Your task to perform on an android device: find snoozed emails in the gmail app Image 0: 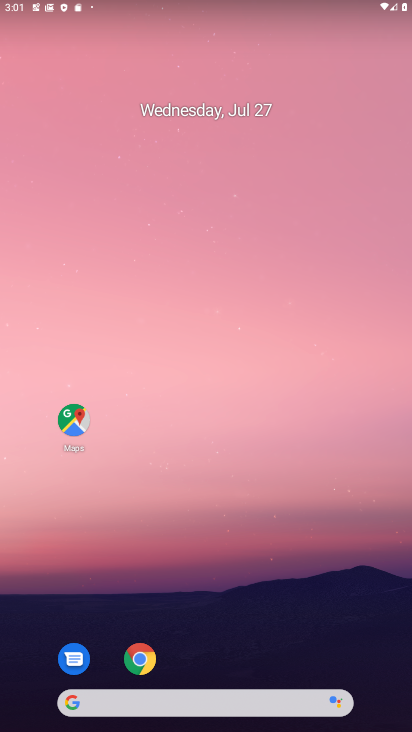
Step 0: drag from (189, 560) to (191, 254)
Your task to perform on an android device: find snoozed emails in the gmail app Image 1: 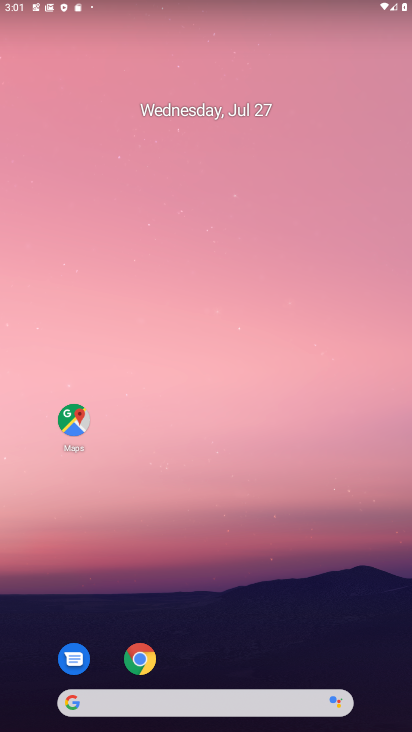
Step 1: drag from (246, 510) to (255, 126)
Your task to perform on an android device: find snoozed emails in the gmail app Image 2: 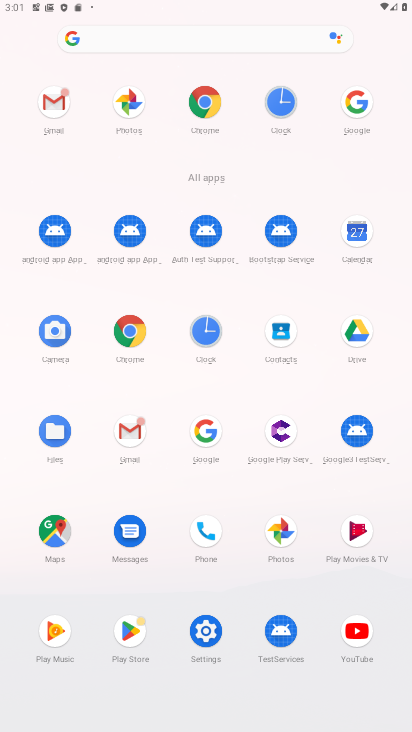
Step 2: click (127, 433)
Your task to perform on an android device: find snoozed emails in the gmail app Image 3: 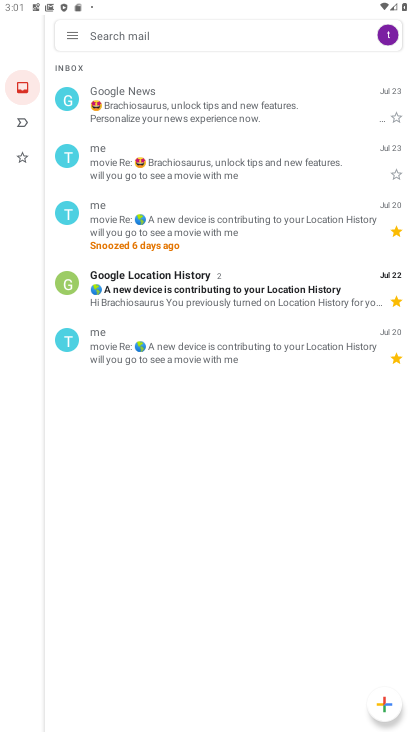
Step 3: click (73, 30)
Your task to perform on an android device: find snoozed emails in the gmail app Image 4: 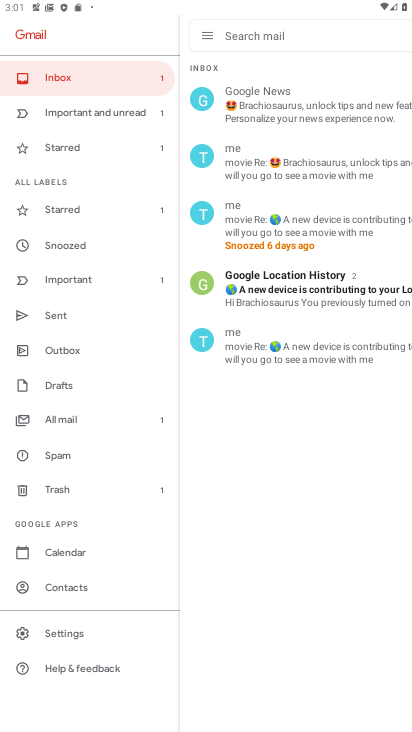
Step 4: click (64, 243)
Your task to perform on an android device: find snoozed emails in the gmail app Image 5: 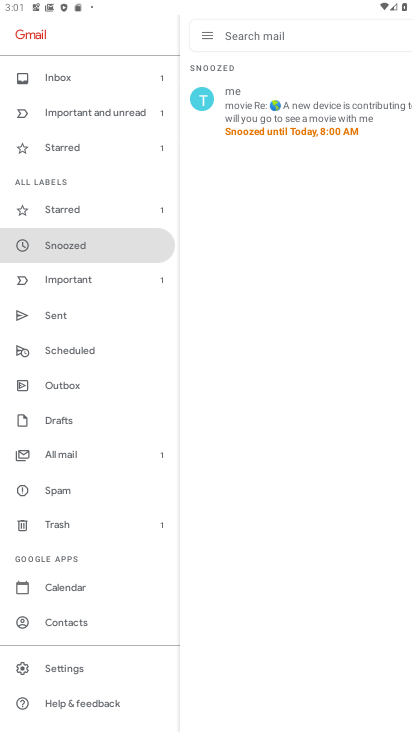
Step 5: task complete